Your task to perform on an android device: Search for sushi restaurants on Maps Image 0: 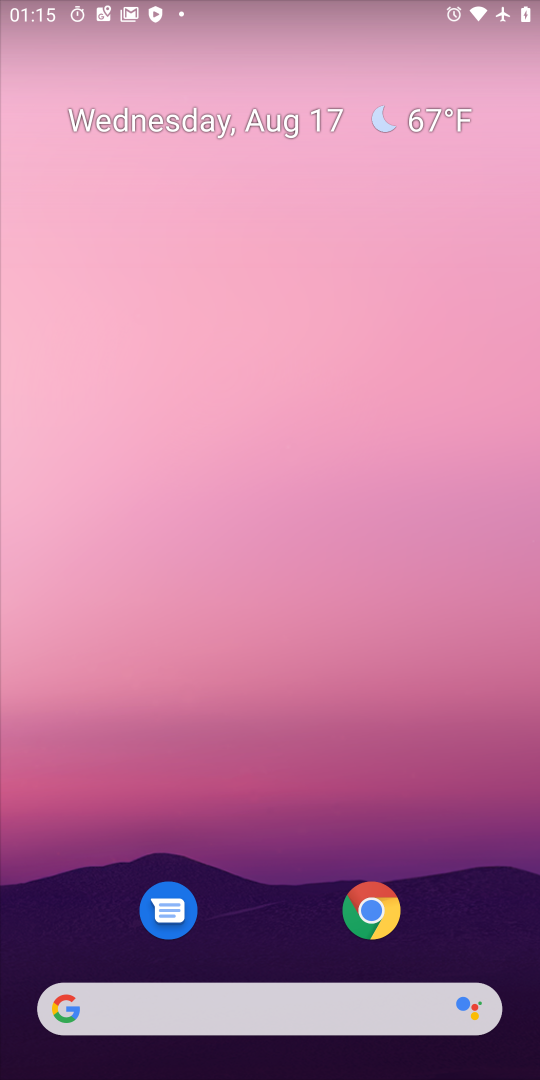
Step 0: drag from (261, 906) to (329, 163)
Your task to perform on an android device: Search for sushi restaurants on Maps Image 1: 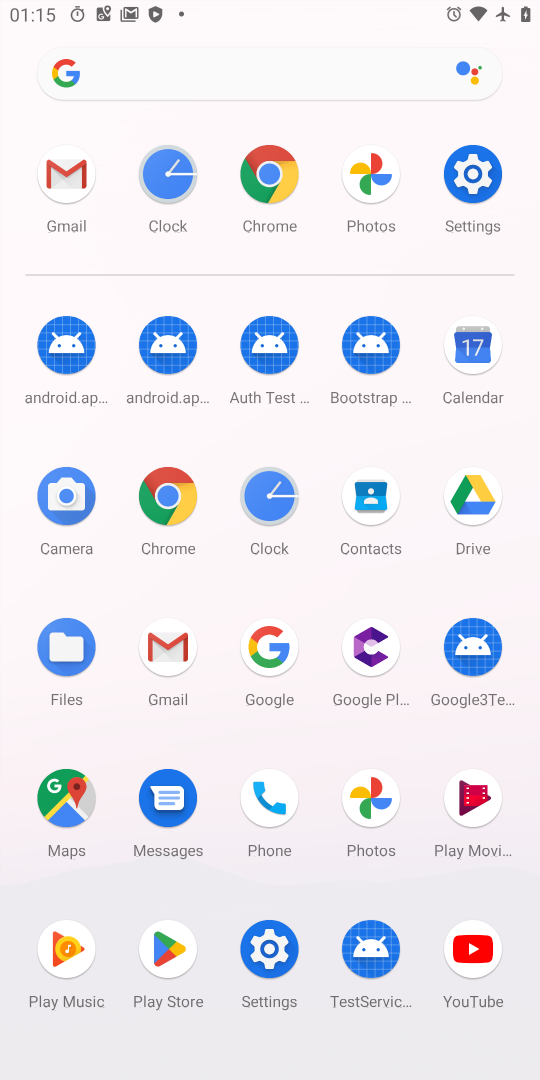
Step 1: click (61, 806)
Your task to perform on an android device: Search for sushi restaurants on Maps Image 2: 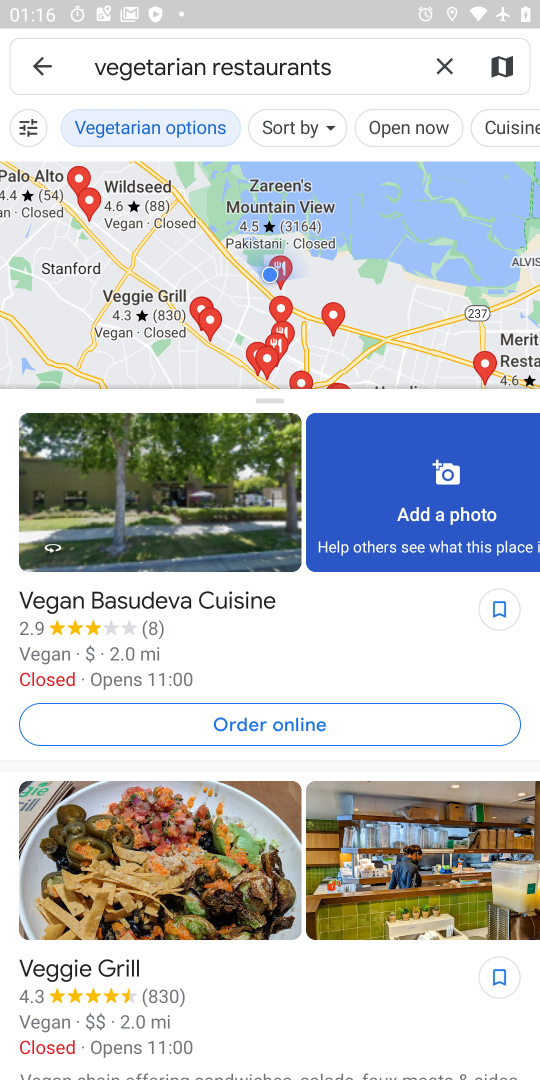
Step 2: click (442, 62)
Your task to perform on an android device: Search for sushi restaurants on Maps Image 3: 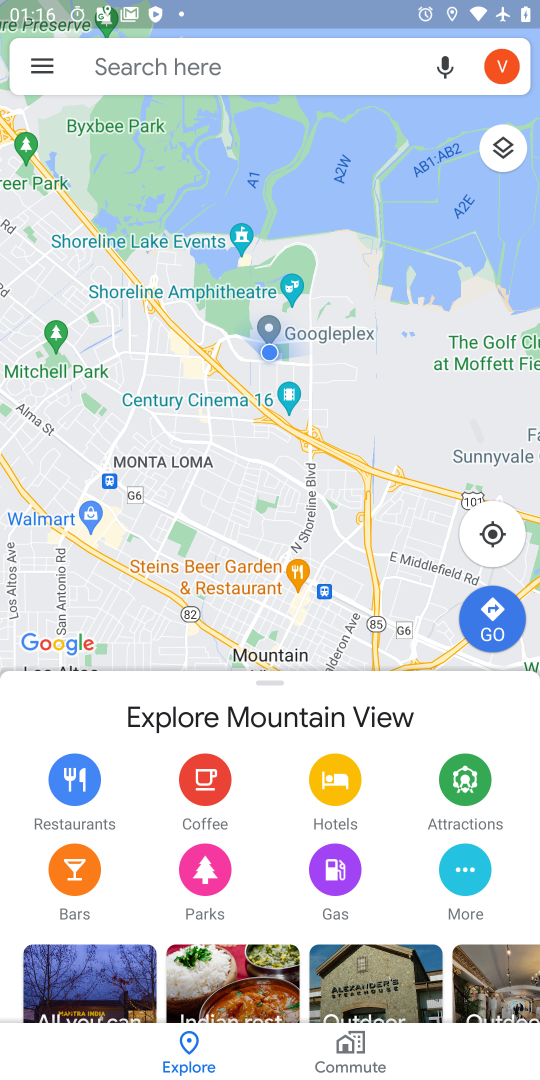
Step 3: click (270, 60)
Your task to perform on an android device: Search for sushi restaurants on Maps Image 4: 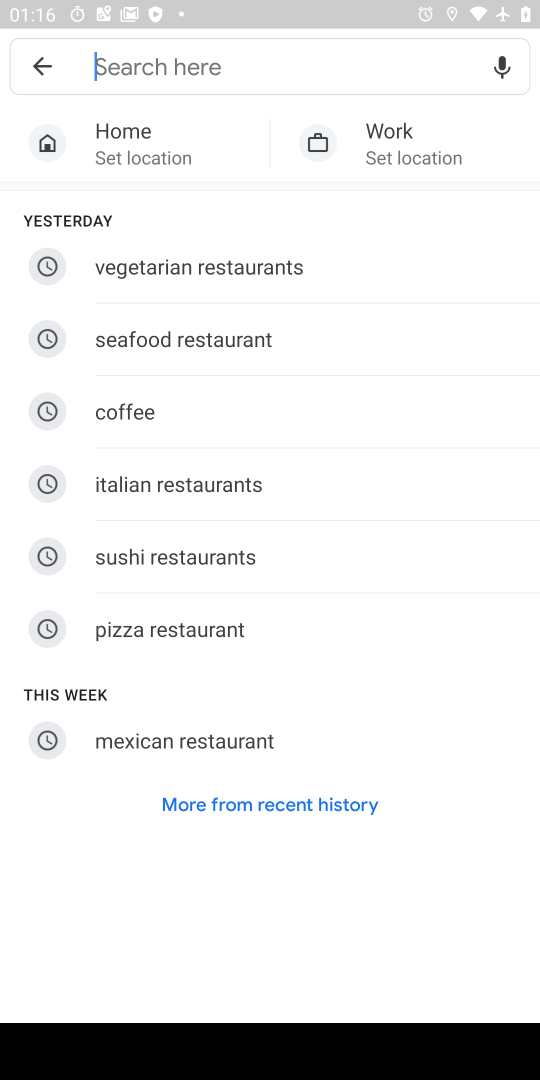
Step 4: click (211, 572)
Your task to perform on an android device: Search for sushi restaurants on Maps Image 5: 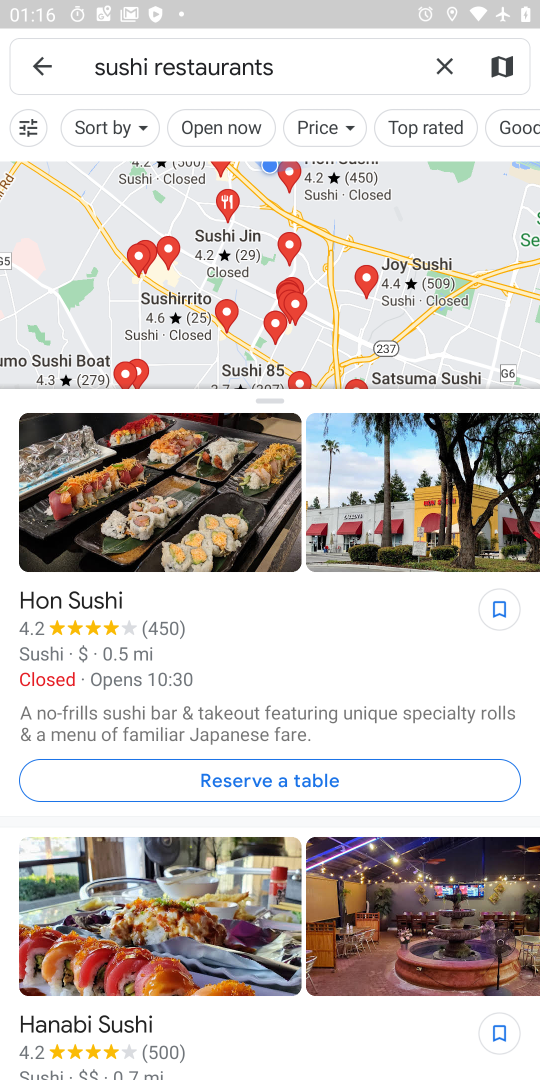
Step 5: task complete